Your task to perform on an android device: change notification settings in the gmail app Image 0: 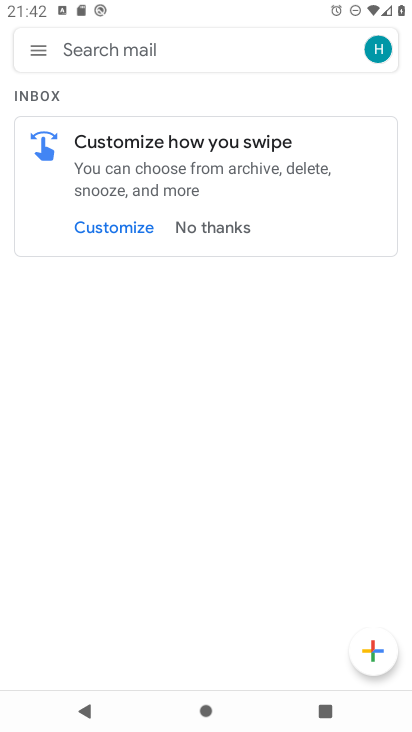
Step 0: press home button
Your task to perform on an android device: change notification settings in the gmail app Image 1: 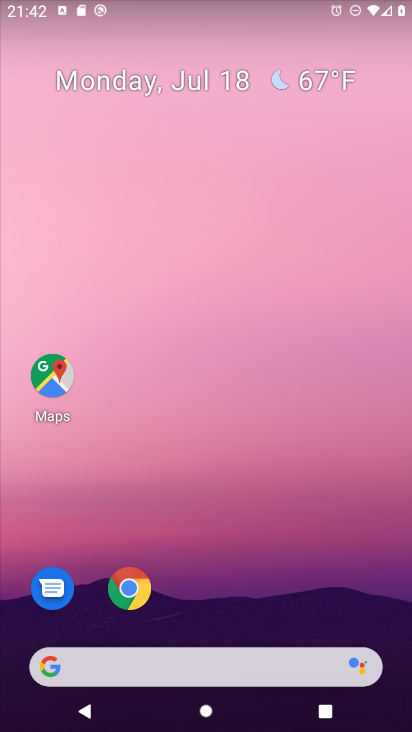
Step 1: drag from (350, 613) to (306, 154)
Your task to perform on an android device: change notification settings in the gmail app Image 2: 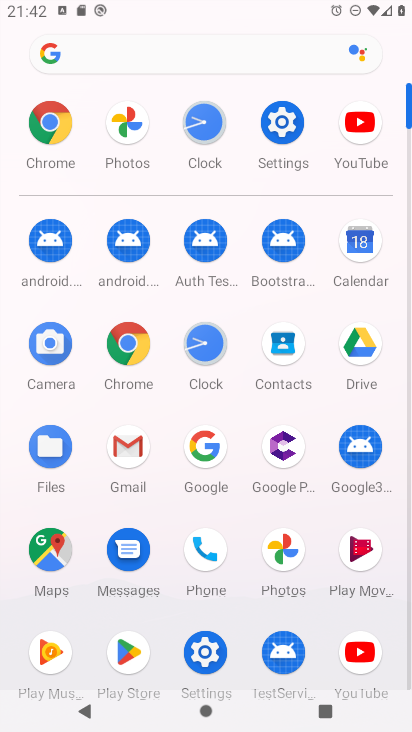
Step 2: click (127, 444)
Your task to perform on an android device: change notification settings in the gmail app Image 3: 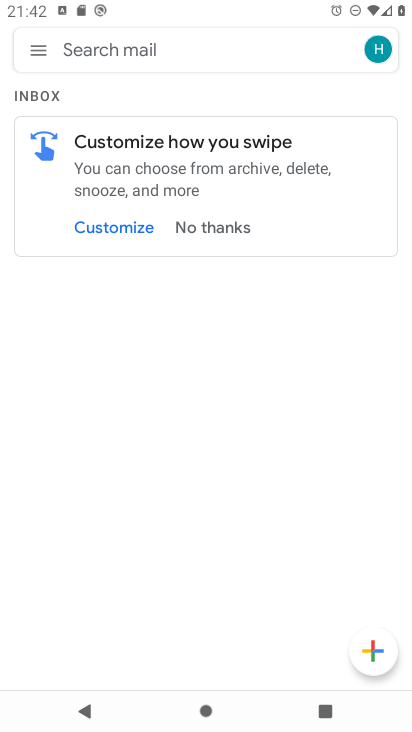
Step 3: click (211, 220)
Your task to perform on an android device: change notification settings in the gmail app Image 4: 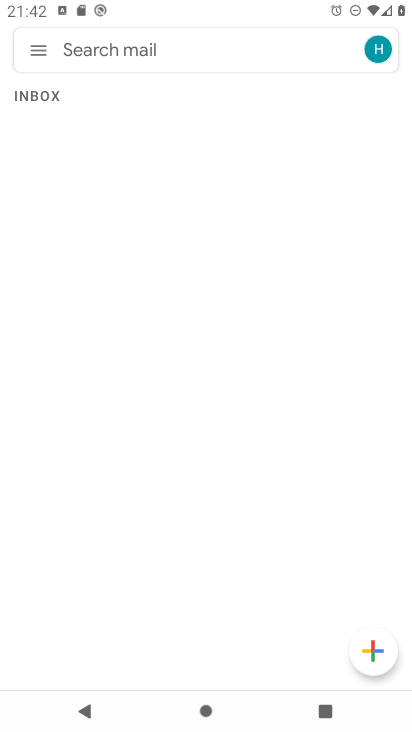
Step 4: click (41, 43)
Your task to perform on an android device: change notification settings in the gmail app Image 5: 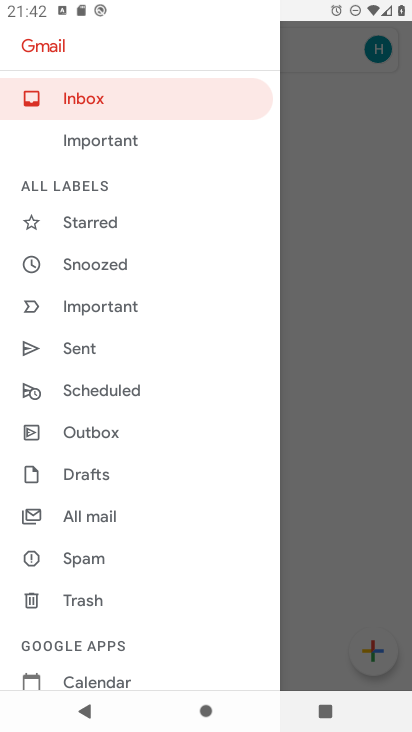
Step 5: drag from (186, 613) to (212, 296)
Your task to perform on an android device: change notification settings in the gmail app Image 6: 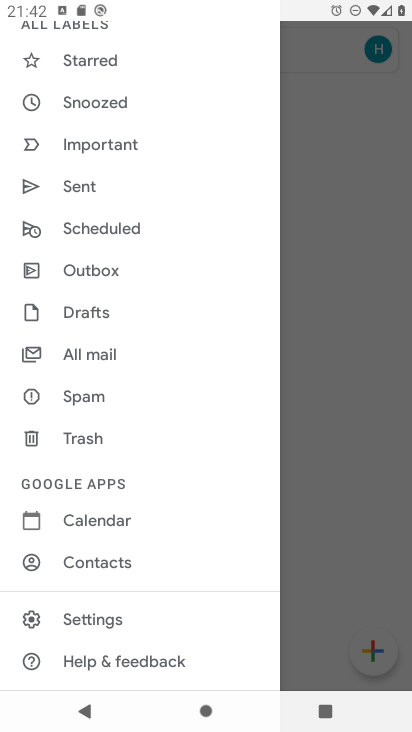
Step 6: click (95, 619)
Your task to perform on an android device: change notification settings in the gmail app Image 7: 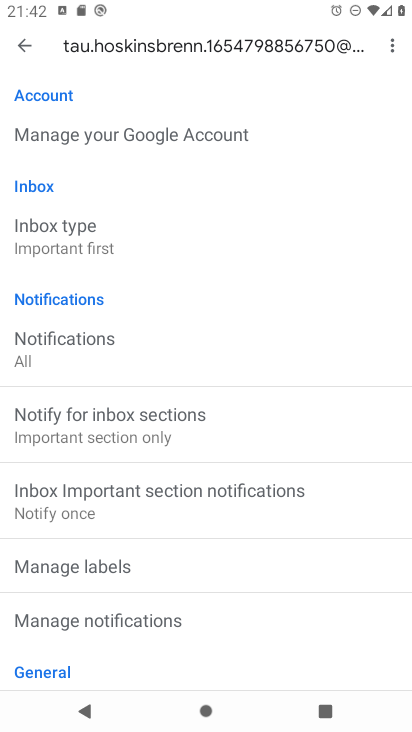
Step 7: click (76, 616)
Your task to perform on an android device: change notification settings in the gmail app Image 8: 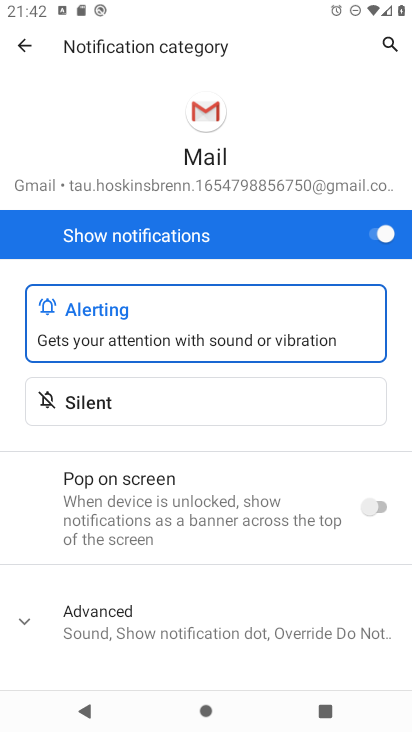
Step 8: click (375, 234)
Your task to perform on an android device: change notification settings in the gmail app Image 9: 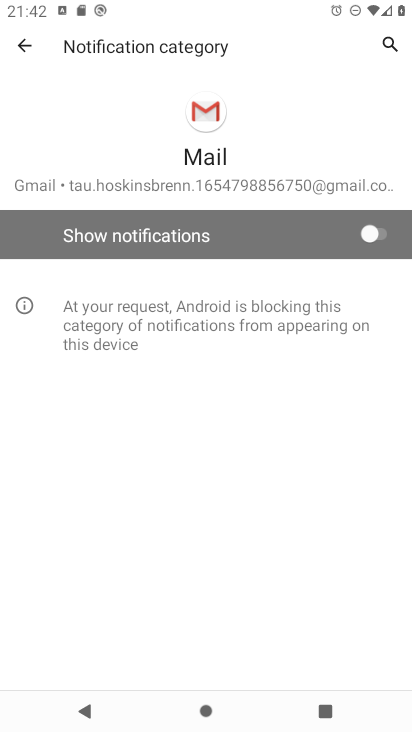
Step 9: task complete